Your task to perform on an android device: turn on the 12-hour format for clock Image 0: 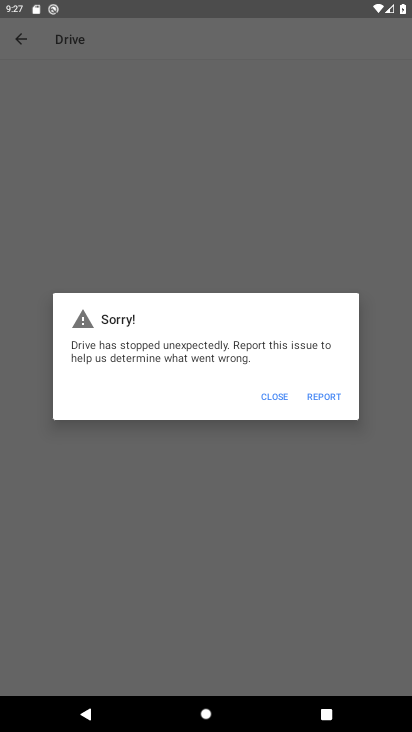
Step 0: press home button
Your task to perform on an android device: turn on the 12-hour format for clock Image 1: 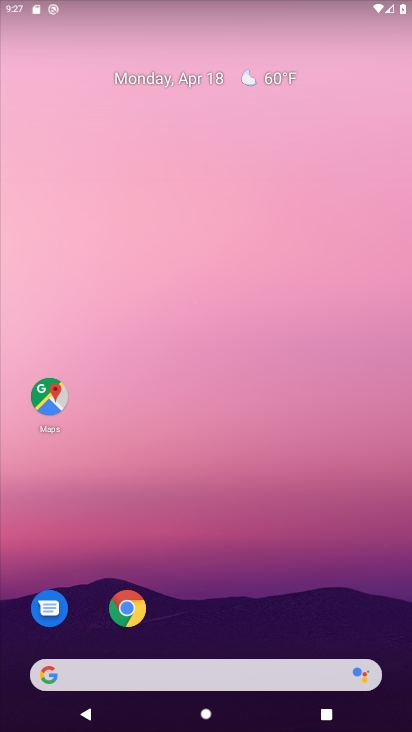
Step 1: drag from (360, 532) to (345, 74)
Your task to perform on an android device: turn on the 12-hour format for clock Image 2: 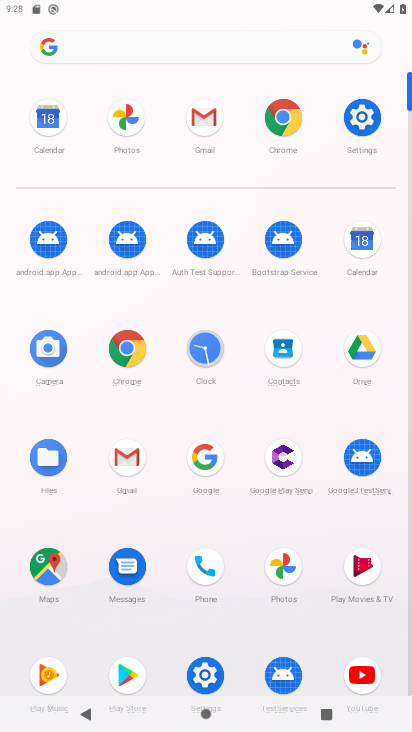
Step 2: click (210, 347)
Your task to perform on an android device: turn on the 12-hour format for clock Image 3: 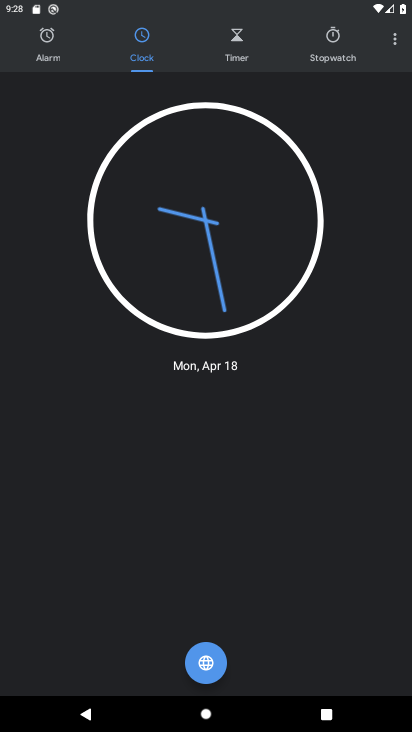
Step 3: click (396, 39)
Your task to perform on an android device: turn on the 12-hour format for clock Image 4: 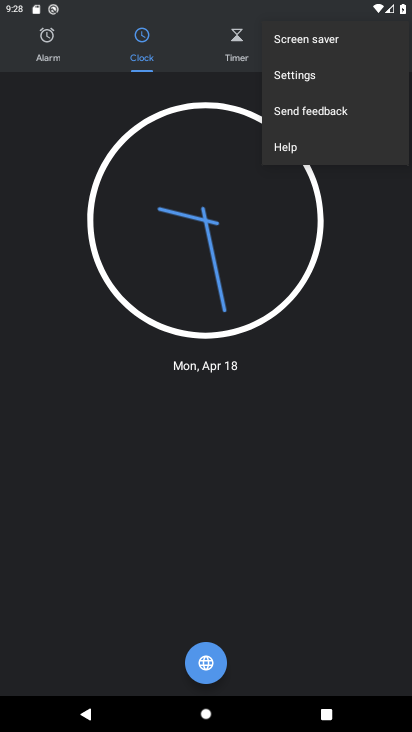
Step 4: click (298, 80)
Your task to perform on an android device: turn on the 12-hour format for clock Image 5: 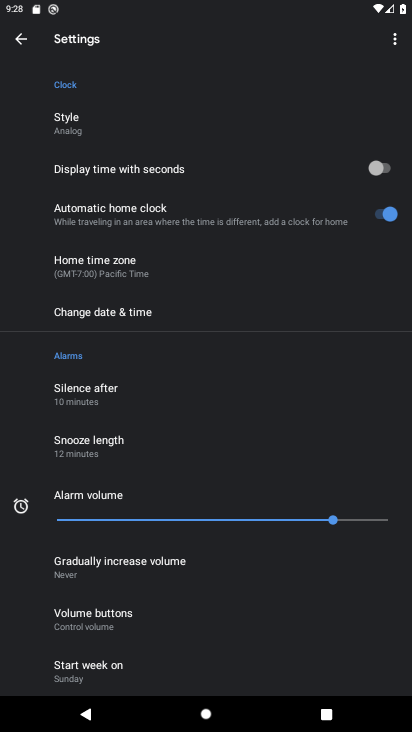
Step 5: click (242, 311)
Your task to perform on an android device: turn on the 12-hour format for clock Image 6: 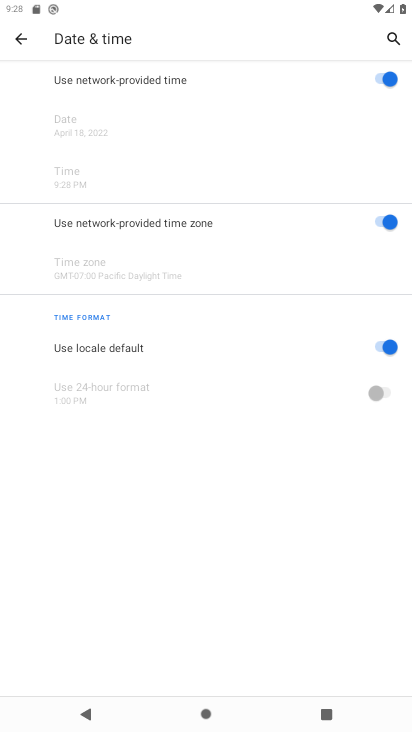
Step 6: task complete